Your task to perform on an android device: Open network settings Image 0: 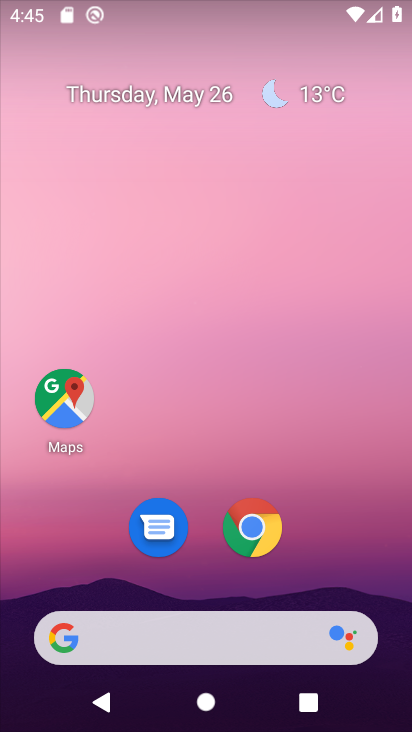
Step 0: drag from (373, 550) to (355, 138)
Your task to perform on an android device: Open network settings Image 1: 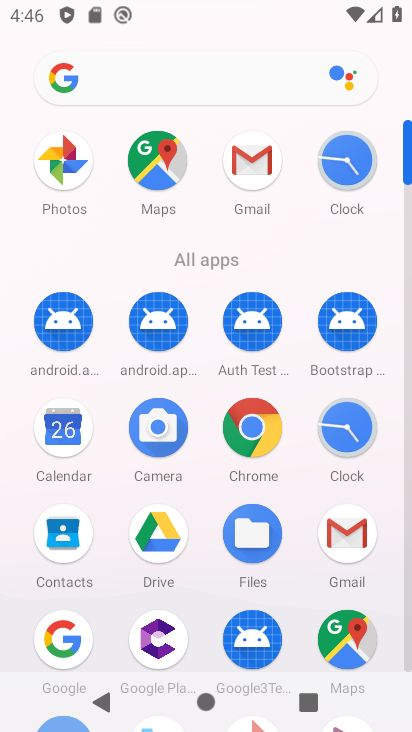
Step 1: click (410, 586)
Your task to perform on an android device: Open network settings Image 2: 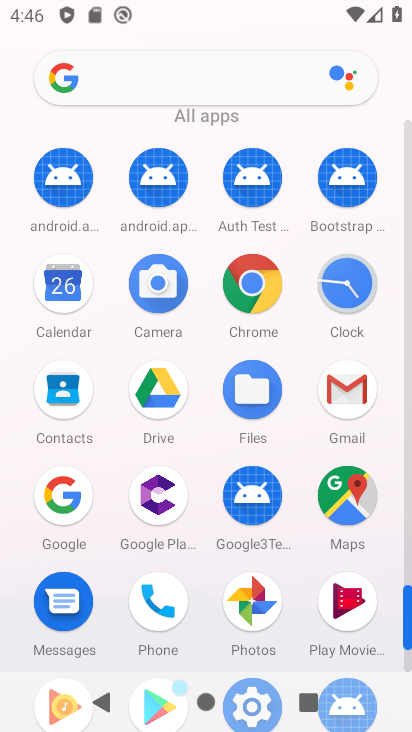
Step 2: click (403, 658)
Your task to perform on an android device: Open network settings Image 3: 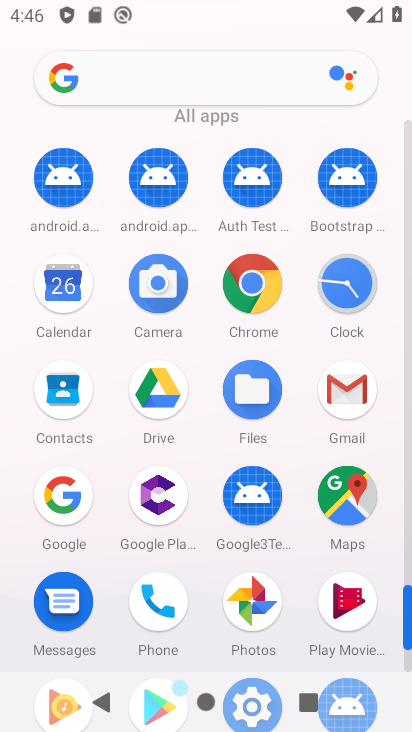
Step 3: click (411, 658)
Your task to perform on an android device: Open network settings Image 4: 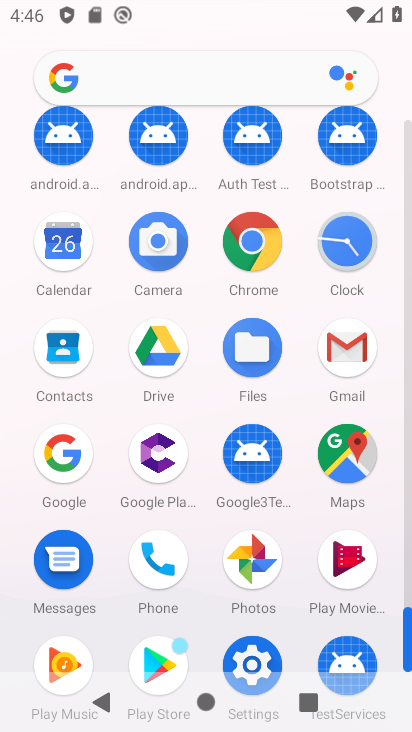
Step 4: click (411, 658)
Your task to perform on an android device: Open network settings Image 5: 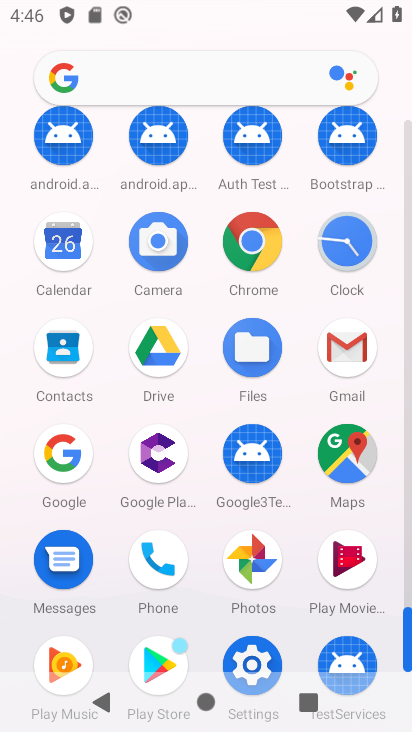
Step 5: click (255, 658)
Your task to perform on an android device: Open network settings Image 6: 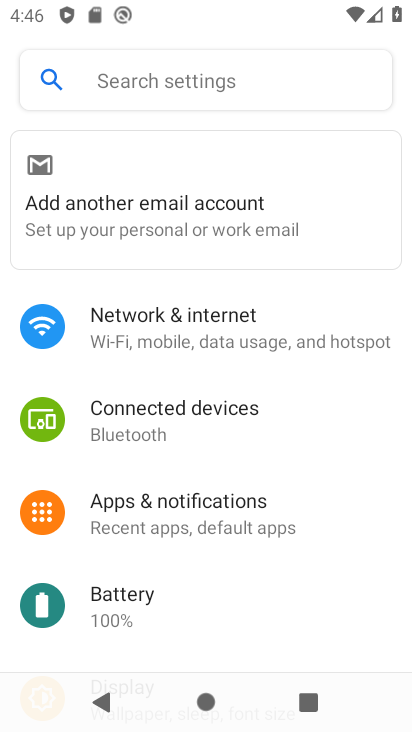
Step 6: click (139, 350)
Your task to perform on an android device: Open network settings Image 7: 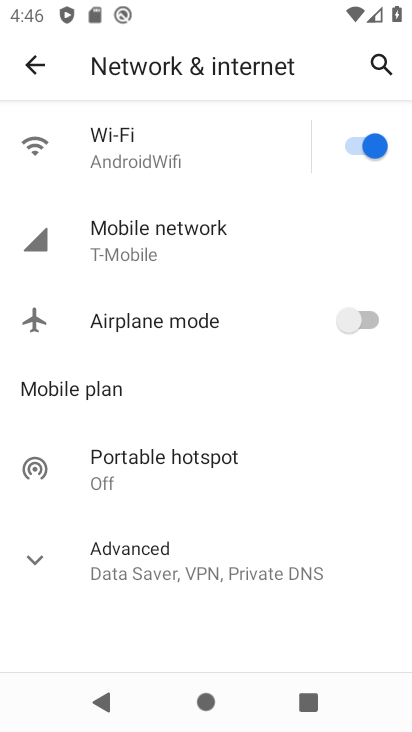
Step 7: task complete